Your task to perform on an android device: change the upload size in google photos Image 0: 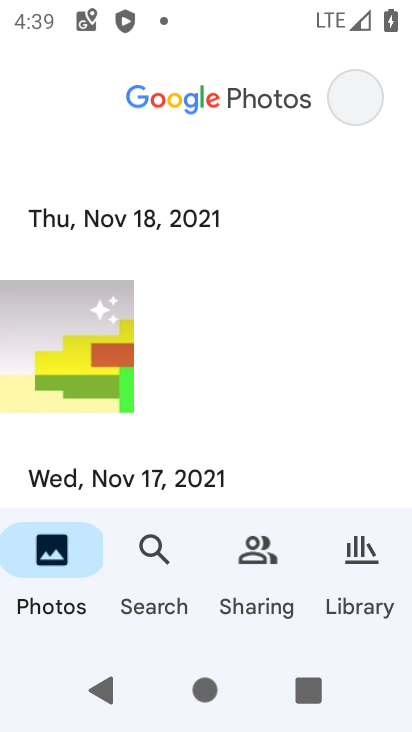
Step 0: press home button
Your task to perform on an android device: change the upload size in google photos Image 1: 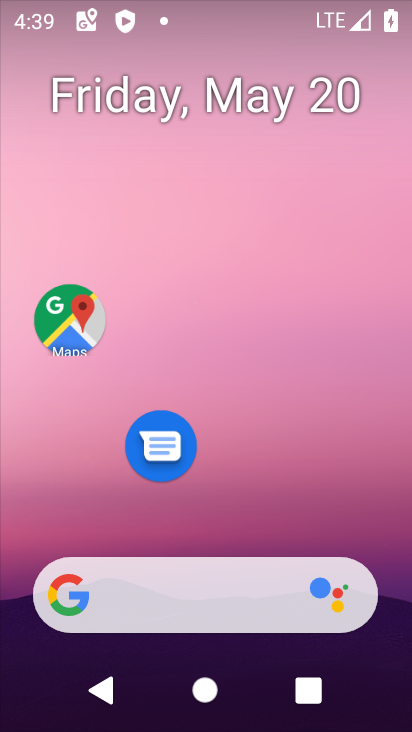
Step 1: drag from (119, 540) to (200, 116)
Your task to perform on an android device: change the upload size in google photos Image 2: 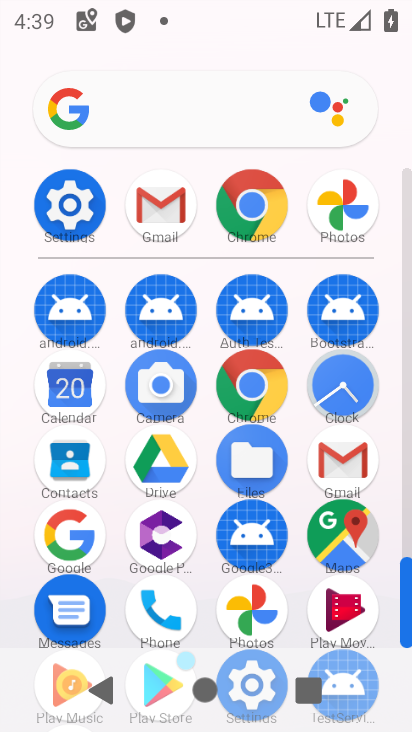
Step 2: click (244, 613)
Your task to perform on an android device: change the upload size in google photos Image 3: 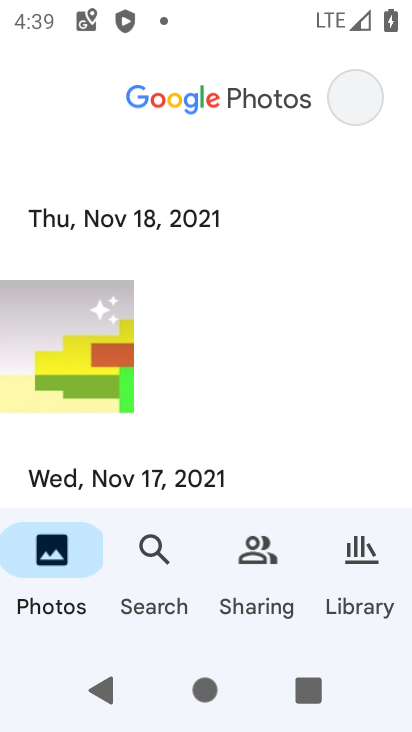
Step 3: click (364, 574)
Your task to perform on an android device: change the upload size in google photos Image 4: 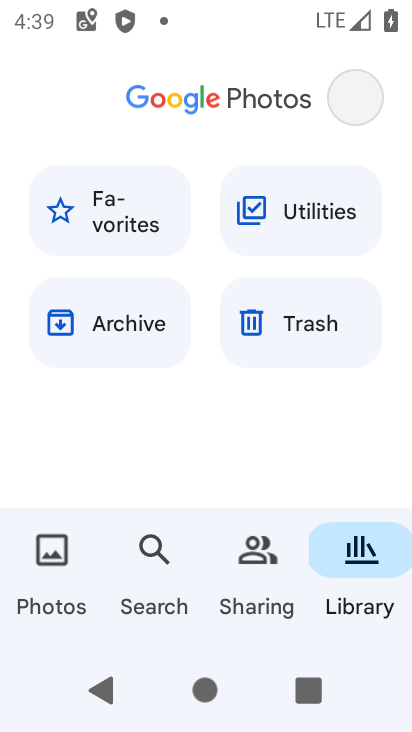
Step 4: click (353, 99)
Your task to perform on an android device: change the upload size in google photos Image 5: 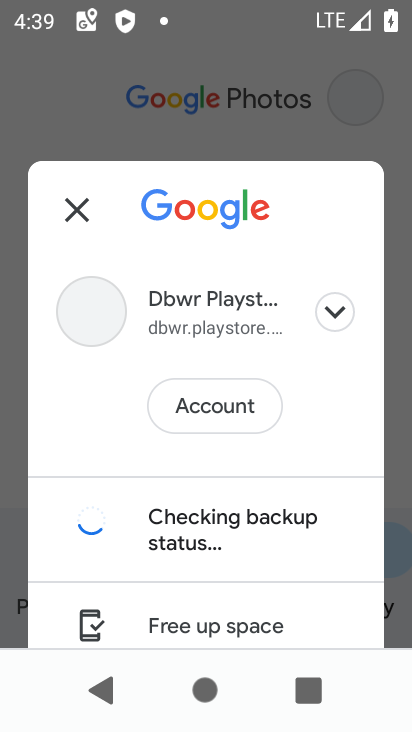
Step 5: drag from (217, 564) to (286, 207)
Your task to perform on an android device: change the upload size in google photos Image 6: 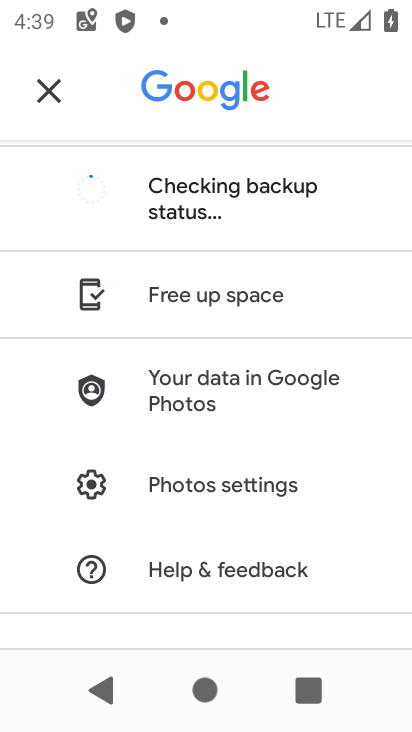
Step 6: click (225, 495)
Your task to perform on an android device: change the upload size in google photos Image 7: 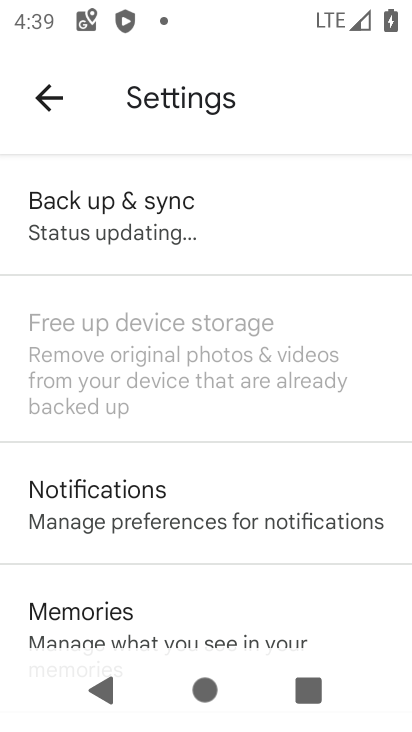
Step 7: click (135, 223)
Your task to perform on an android device: change the upload size in google photos Image 8: 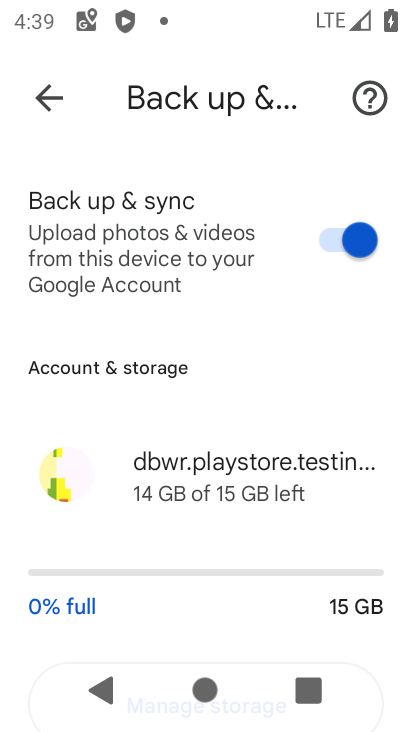
Step 8: drag from (175, 482) to (182, 186)
Your task to perform on an android device: change the upload size in google photos Image 9: 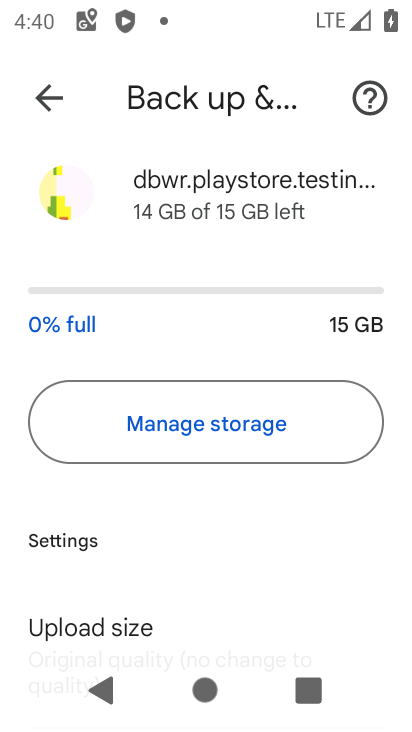
Step 9: drag from (155, 534) to (171, 319)
Your task to perform on an android device: change the upload size in google photos Image 10: 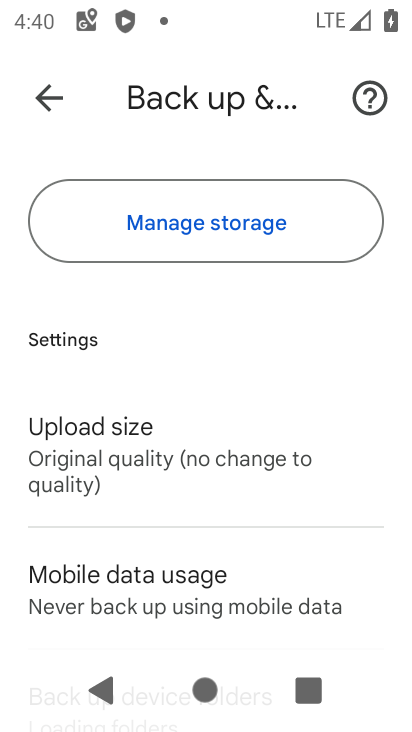
Step 10: click (113, 486)
Your task to perform on an android device: change the upload size in google photos Image 11: 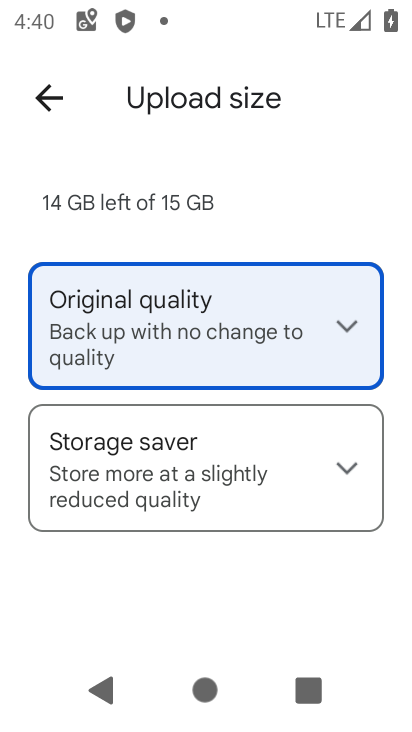
Step 11: click (281, 474)
Your task to perform on an android device: change the upload size in google photos Image 12: 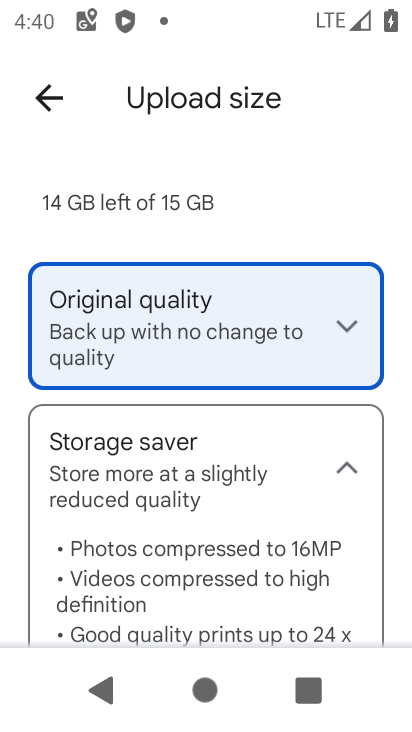
Step 12: drag from (209, 547) to (227, 243)
Your task to perform on an android device: change the upload size in google photos Image 13: 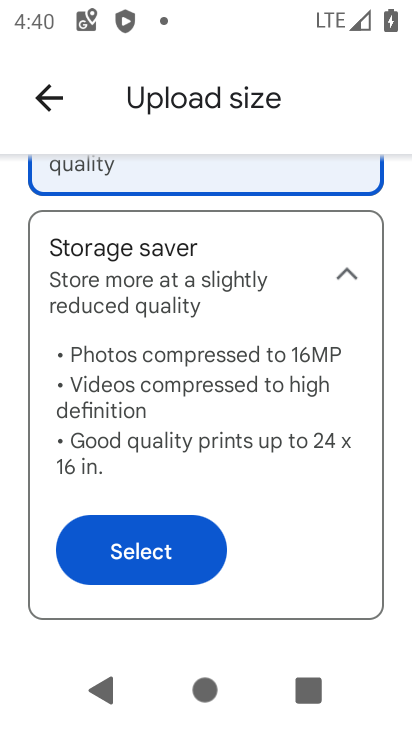
Step 13: click (133, 558)
Your task to perform on an android device: change the upload size in google photos Image 14: 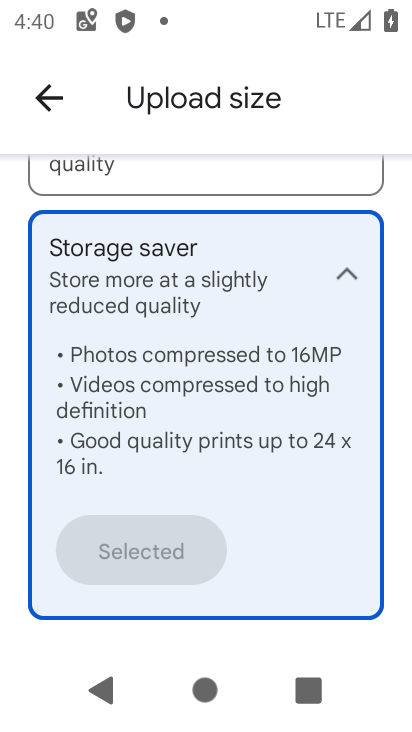
Step 14: task complete